Your task to perform on an android device: turn off smart reply in the gmail app Image 0: 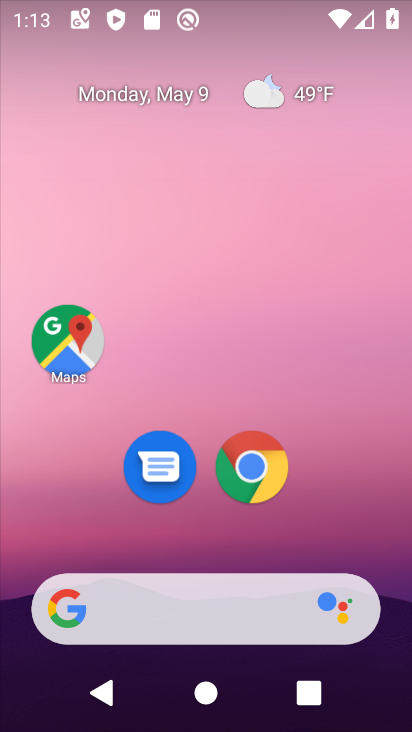
Step 0: drag from (374, 532) to (378, 146)
Your task to perform on an android device: turn off smart reply in the gmail app Image 1: 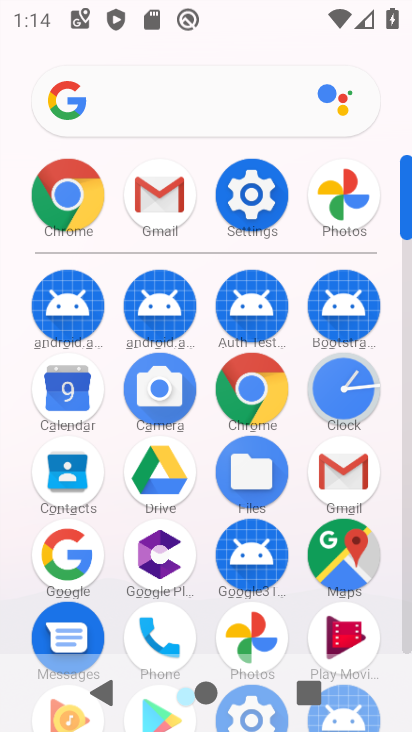
Step 1: click (347, 468)
Your task to perform on an android device: turn off smart reply in the gmail app Image 2: 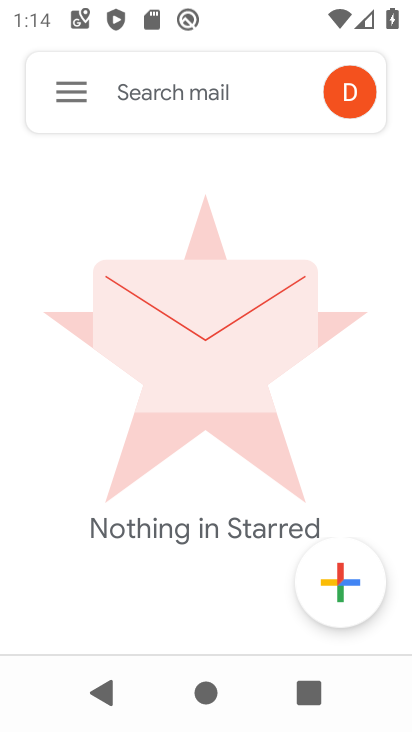
Step 2: click (60, 95)
Your task to perform on an android device: turn off smart reply in the gmail app Image 3: 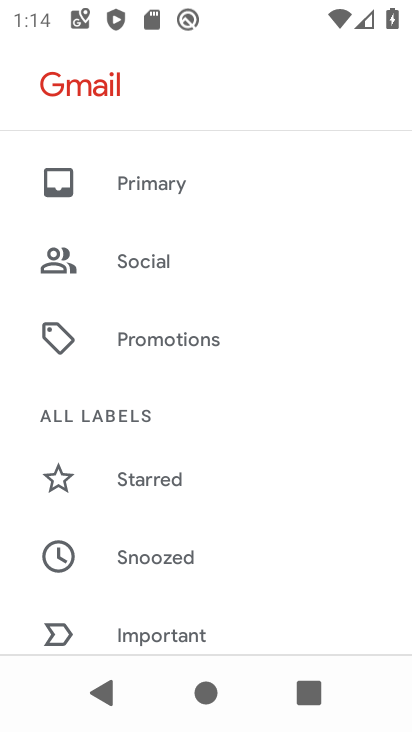
Step 3: drag from (266, 636) to (261, 304)
Your task to perform on an android device: turn off smart reply in the gmail app Image 4: 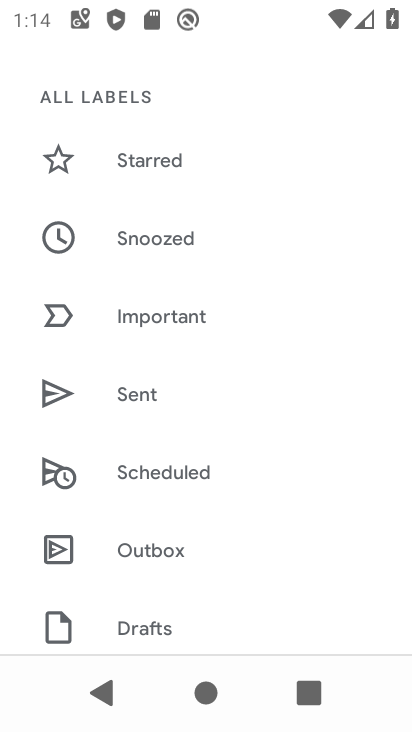
Step 4: drag from (247, 615) to (260, 355)
Your task to perform on an android device: turn off smart reply in the gmail app Image 5: 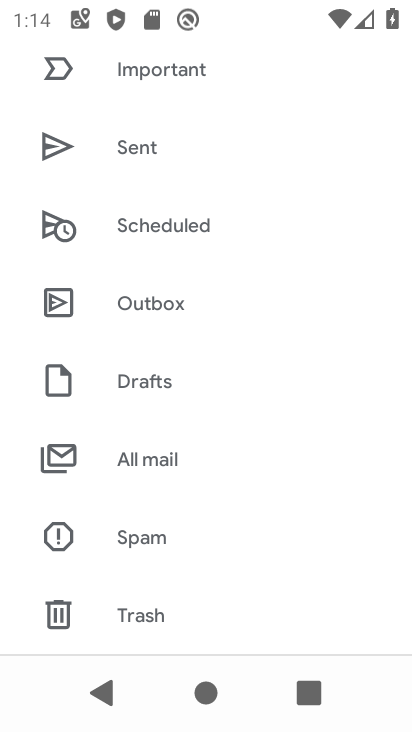
Step 5: drag from (239, 615) to (261, 352)
Your task to perform on an android device: turn off smart reply in the gmail app Image 6: 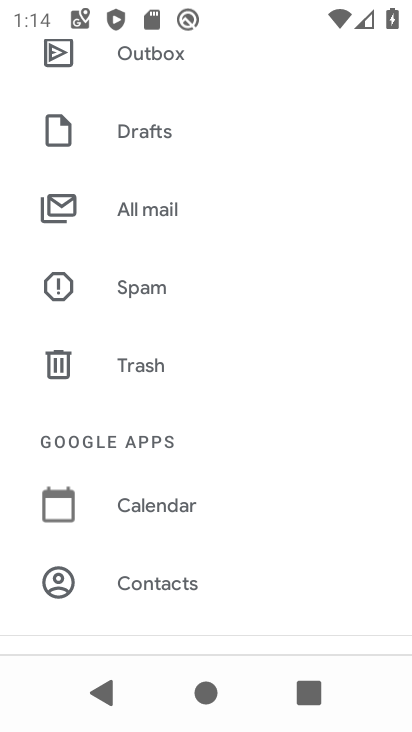
Step 6: drag from (226, 298) to (263, 173)
Your task to perform on an android device: turn off smart reply in the gmail app Image 7: 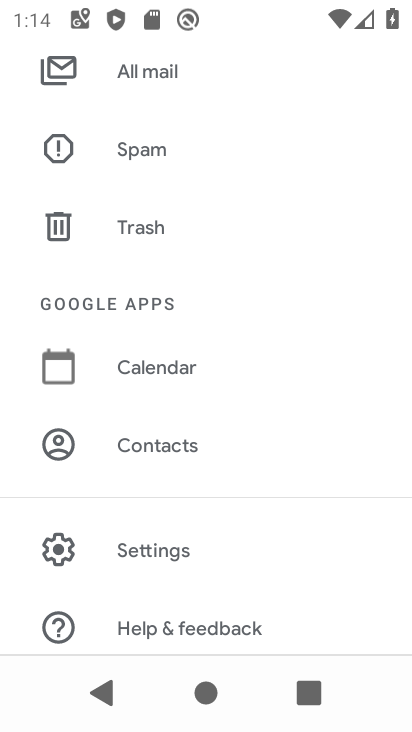
Step 7: click (139, 554)
Your task to perform on an android device: turn off smart reply in the gmail app Image 8: 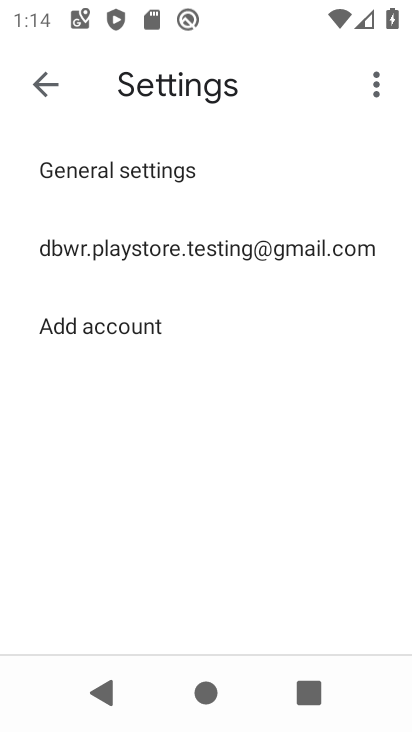
Step 8: click (211, 239)
Your task to perform on an android device: turn off smart reply in the gmail app Image 9: 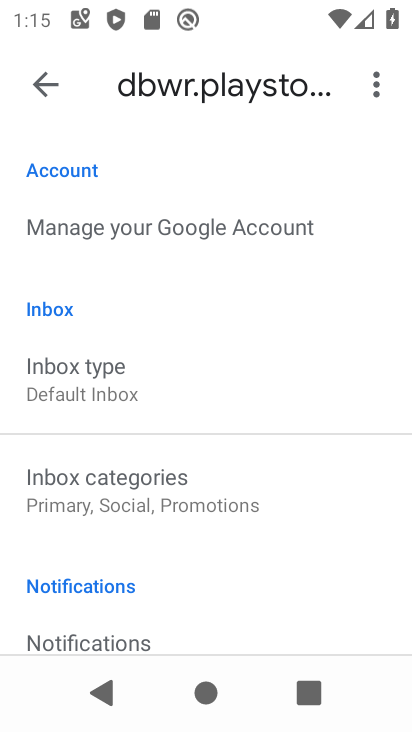
Step 9: drag from (270, 609) to (314, 313)
Your task to perform on an android device: turn off smart reply in the gmail app Image 10: 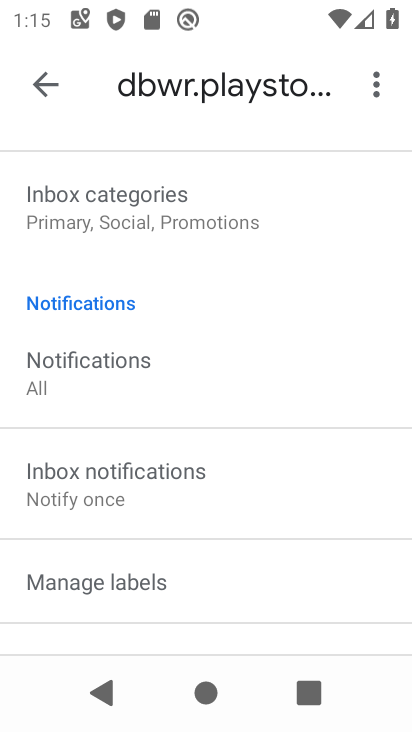
Step 10: drag from (248, 553) to (269, 317)
Your task to perform on an android device: turn off smart reply in the gmail app Image 11: 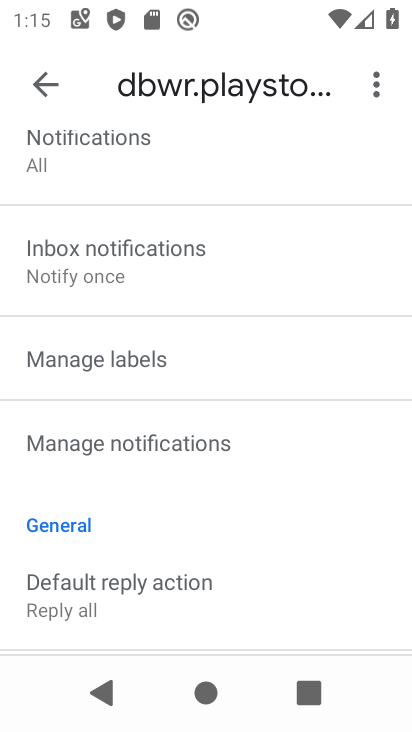
Step 11: drag from (272, 499) to (275, 238)
Your task to perform on an android device: turn off smart reply in the gmail app Image 12: 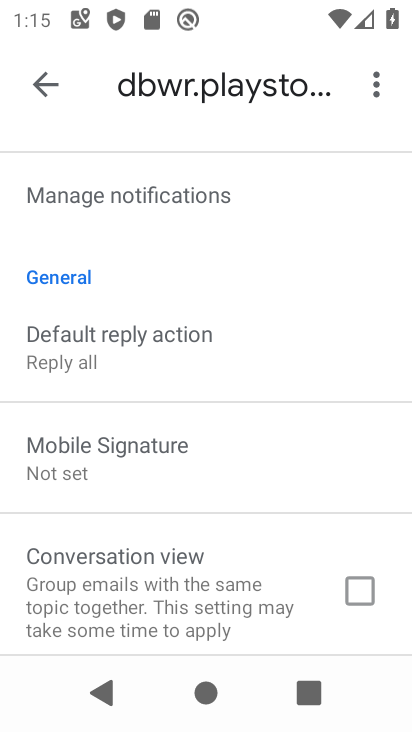
Step 12: drag from (263, 514) to (263, 217)
Your task to perform on an android device: turn off smart reply in the gmail app Image 13: 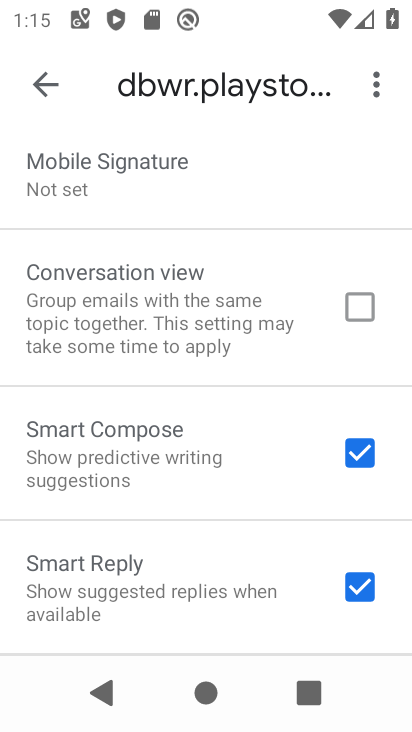
Step 13: click (346, 590)
Your task to perform on an android device: turn off smart reply in the gmail app Image 14: 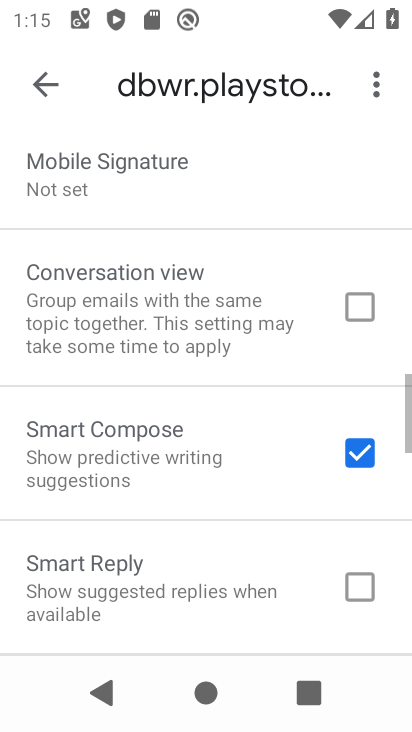
Step 14: task complete